Your task to perform on an android device: Open display settings Image 0: 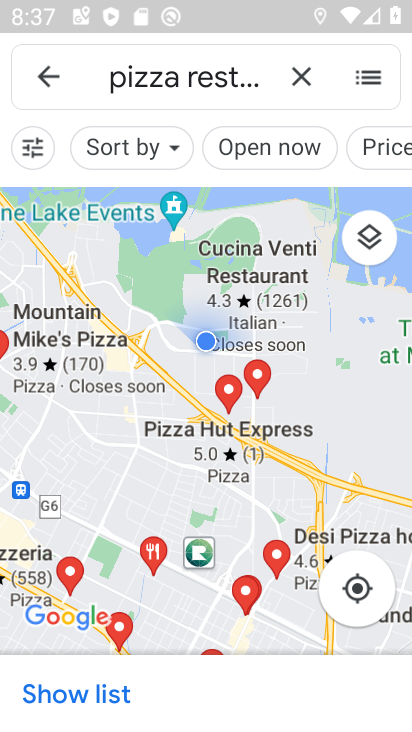
Step 0: press home button
Your task to perform on an android device: Open display settings Image 1: 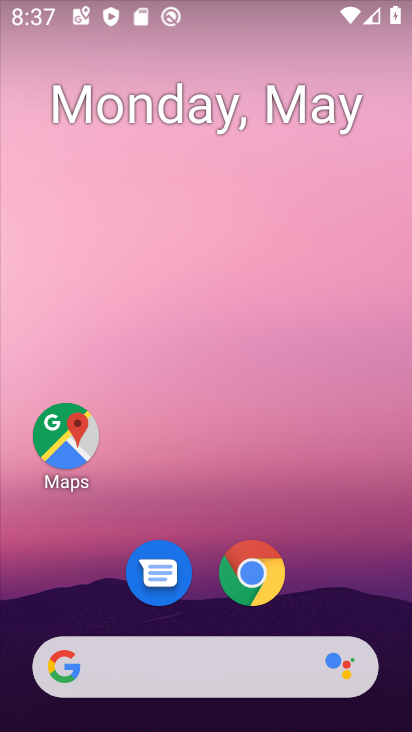
Step 1: drag from (334, 572) to (302, 5)
Your task to perform on an android device: Open display settings Image 2: 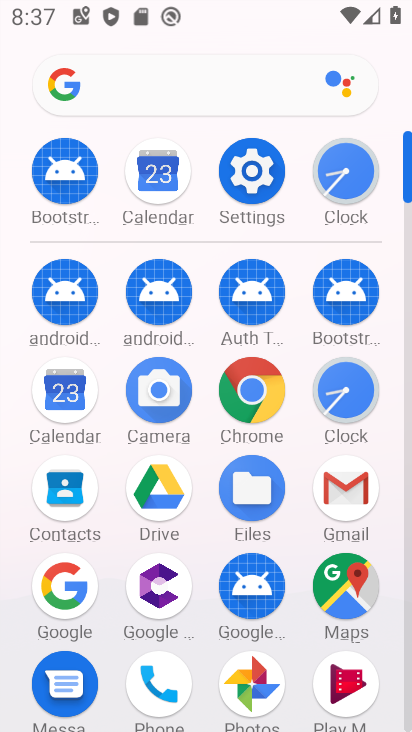
Step 2: click (260, 150)
Your task to perform on an android device: Open display settings Image 3: 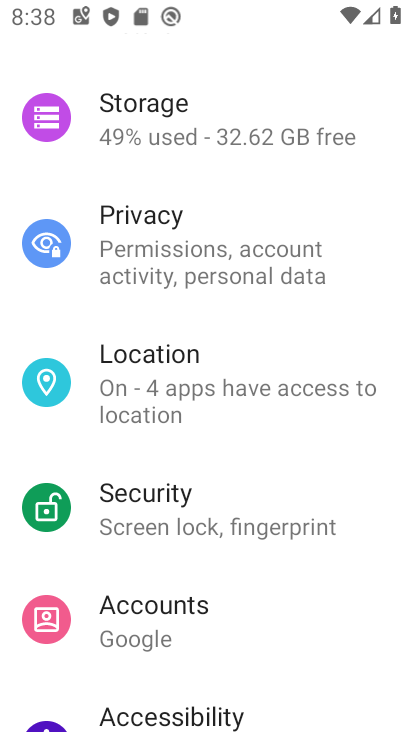
Step 3: drag from (193, 497) to (193, 209)
Your task to perform on an android device: Open display settings Image 4: 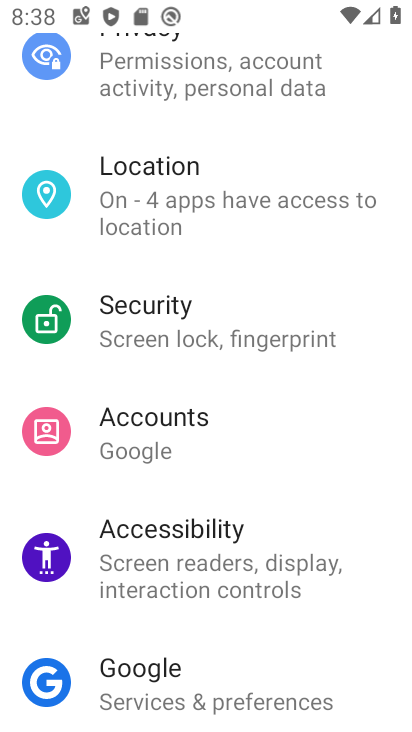
Step 4: drag from (263, 418) to (347, 691)
Your task to perform on an android device: Open display settings Image 5: 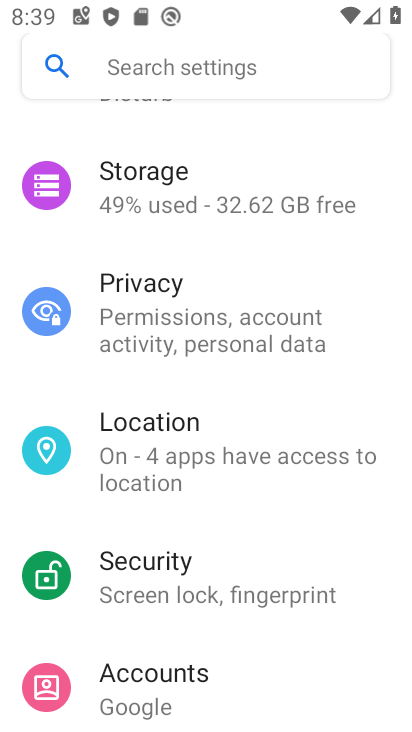
Step 5: drag from (236, 266) to (258, 467)
Your task to perform on an android device: Open display settings Image 6: 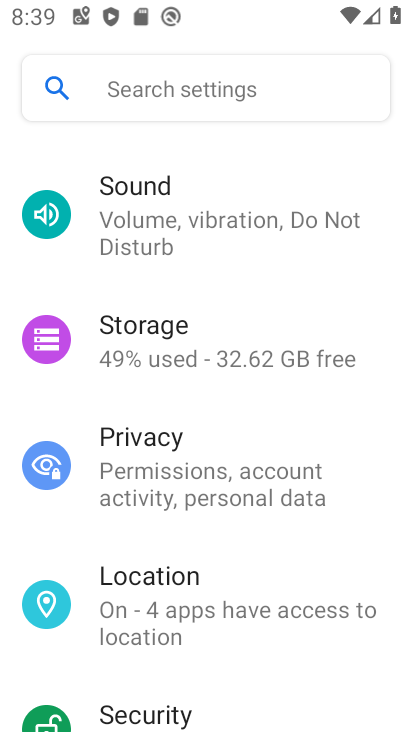
Step 6: click (288, 321)
Your task to perform on an android device: Open display settings Image 7: 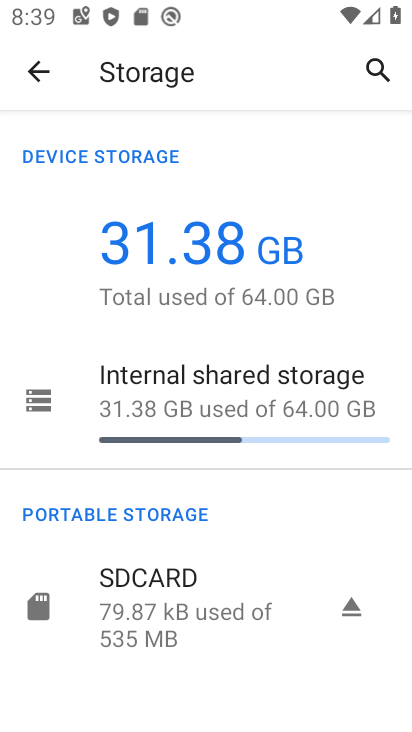
Step 7: task complete